Your task to perform on an android device: see sites visited before in the chrome app Image 0: 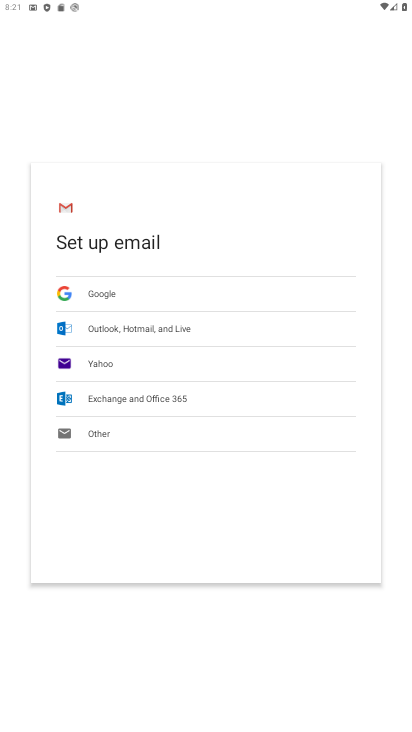
Step 0: press back button
Your task to perform on an android device: see sites visited before in the chrome app Image 1: 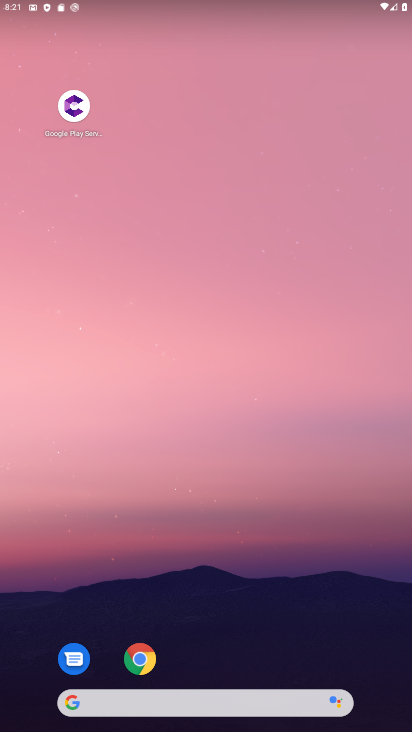
Step 1: drag from (238, 509) to (238, 181)
Your task to perform on an android device: see sites visited before in the chrome app Image 2: 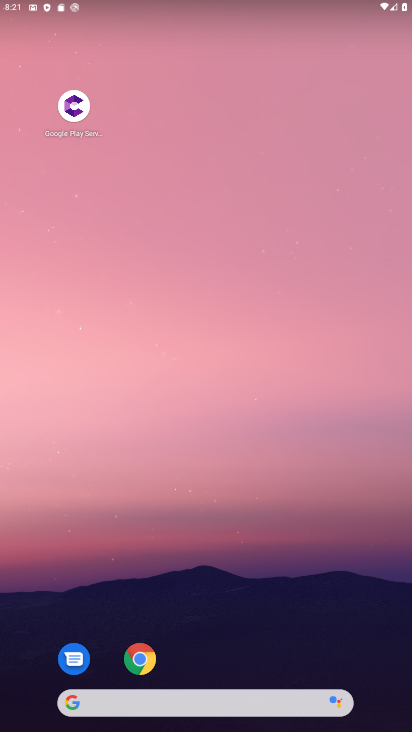
Step 2: drag from (195, 620) to (195, 184)
Your task to perform on an android device: see sites visited before in the chrome app Image 3: 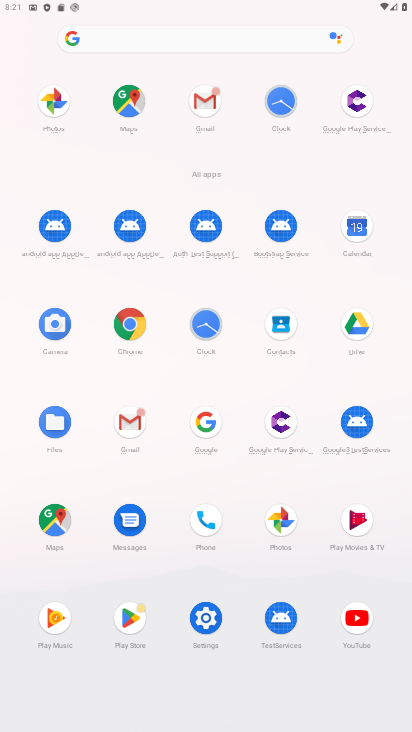
Step 3: click (136, 325)
Your task to perform on an android device: see sites visited before in the chrome app Image 4: 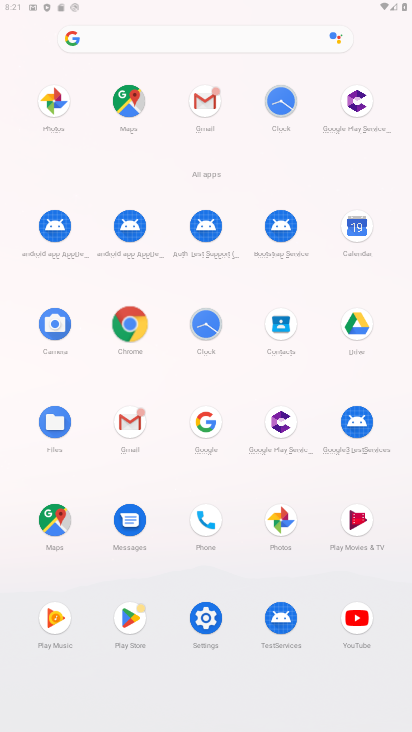
Step 4: click (136, 325)
Your task to perform on an android device: see sites visited before in the chrome app Image 5: 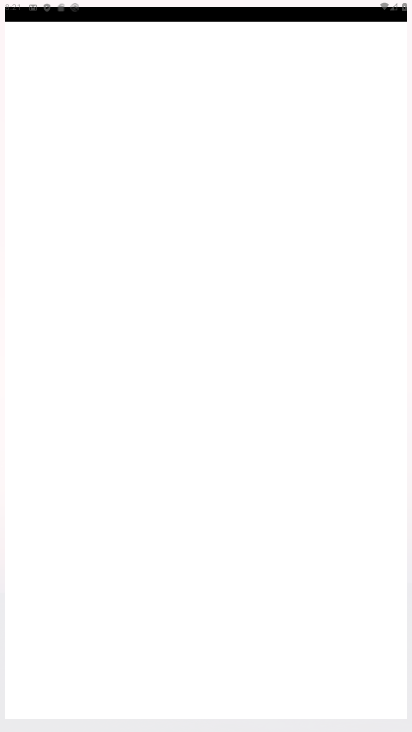
Step 5: click (136, 325)
Your task to perform on an android device: see sites visited before in the chrome app Image 6: 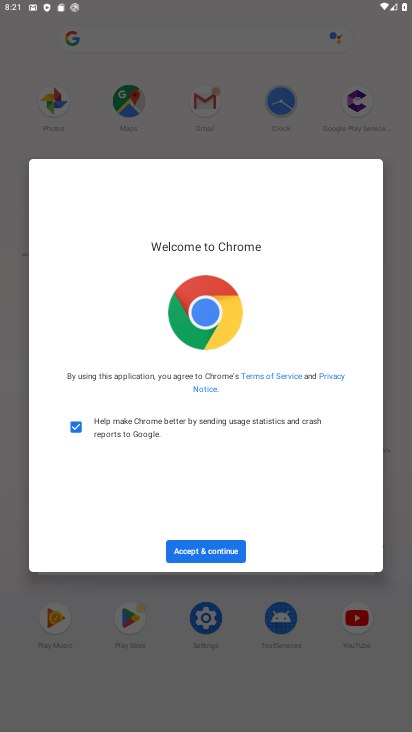
Step 6: click (210, 543)
Your task to perform on an android device: see sites visited before in the chrome app Image 7: 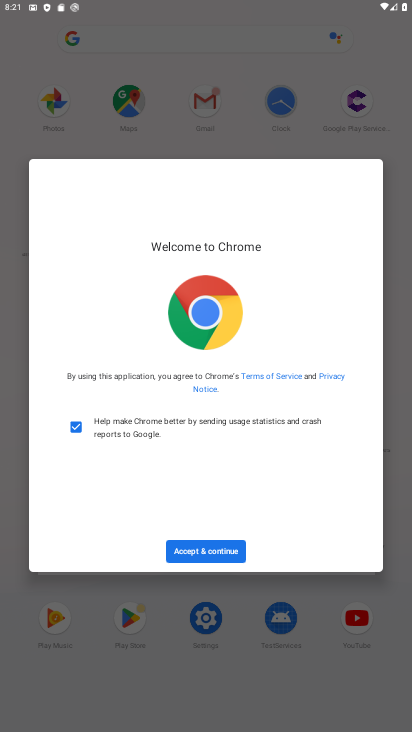
Step 7: click (210, 543)
Your task to perform on an android device: see sites visited before in the chrome app Image 8: 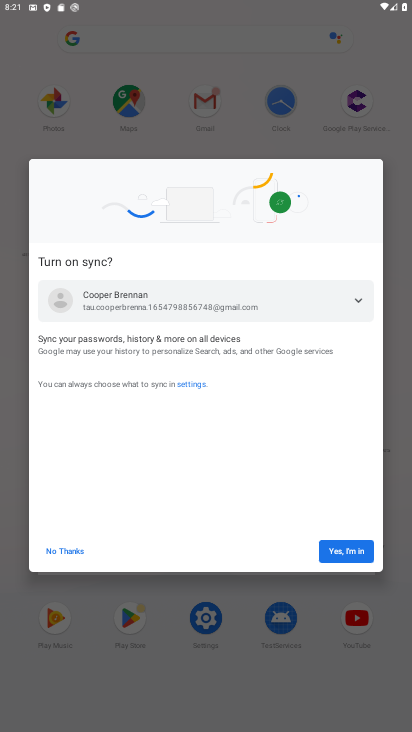
Step 8: click (366, 557)
Your task to perform on an android device: see sites visited before in the chrome app Image 9: 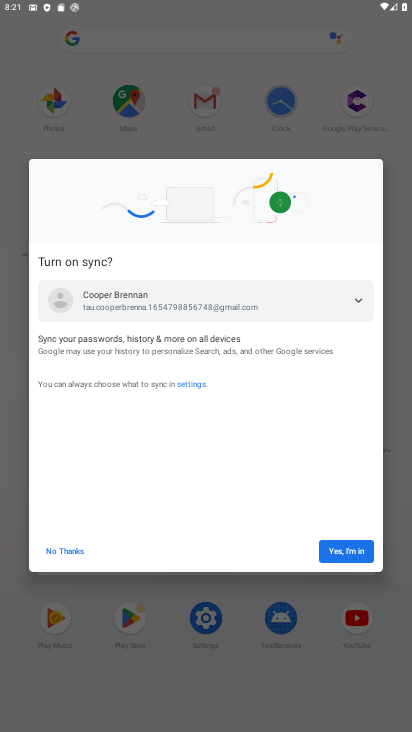
Step 9: click (366, 557)
Your task to perform on an android device: see sites visited before in the chrome app Image 10: 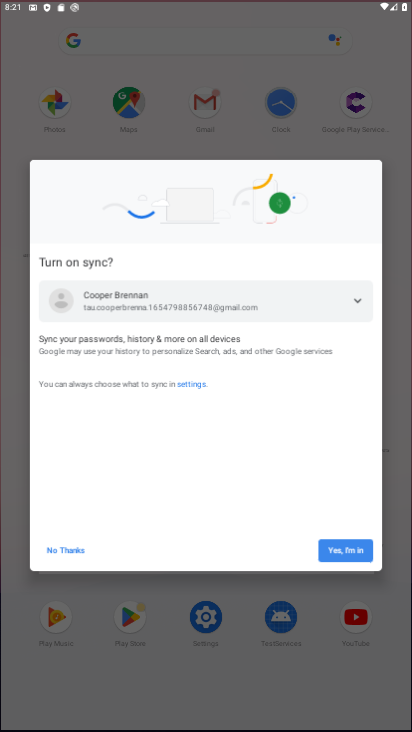
Step 10: click (366, 557)
Your task to perform on an android device: see sites visited before in the chrome app Image 11: 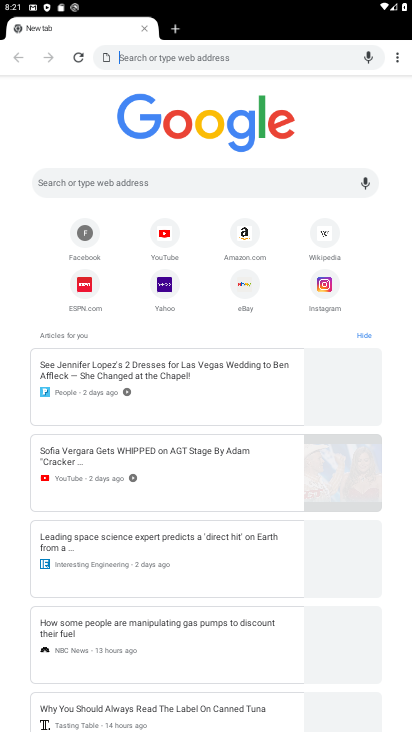
Step 11: drag from (391, 57) to (285, 115)
Your task to perform on an android device: see sites visited before in the chrome app Image 12: 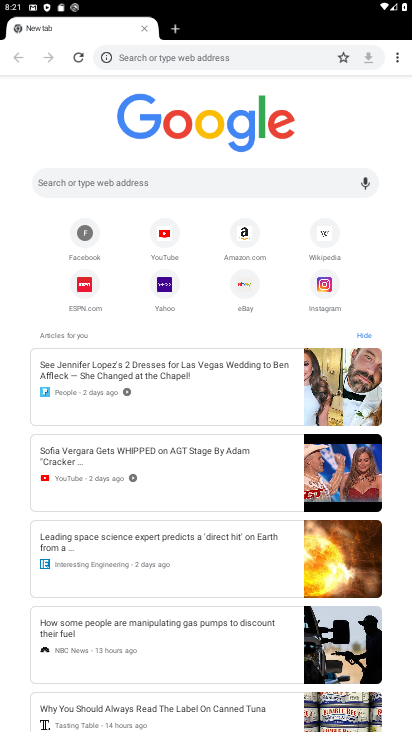
Step 12: click (285, 115)
Your task to perform on an android device: see sites visited before in the chrome app Image 13: 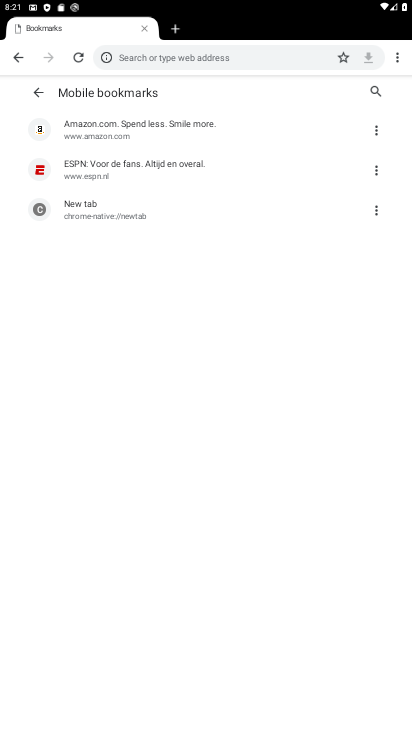
Step 13: click (17, 59)
Your task to perform on an android device: see sites visited before in the chrome app Image 14: 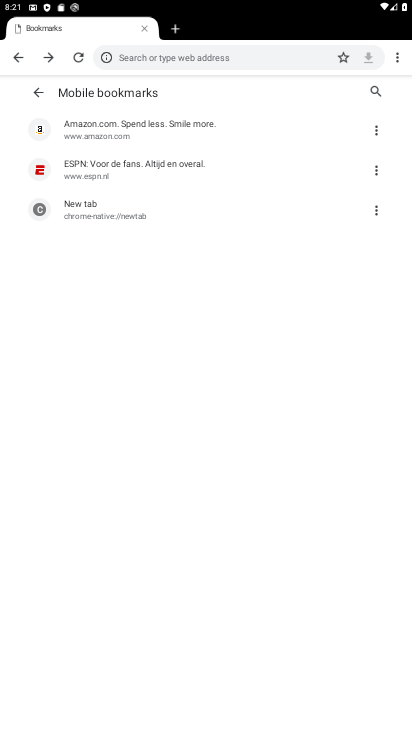
Step 14: drag from (394, 62) to (263, 146)
Your task to perform on an android device: see sites visited before in the chrome app Image 15: 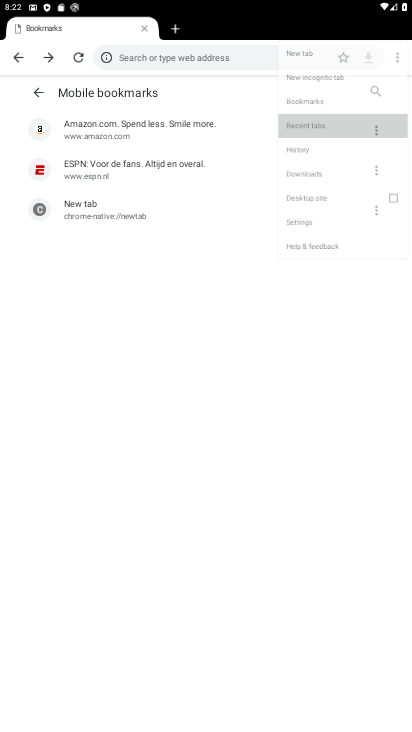
Step 15: click (267, 141)
Your task to perform on an android device: see sites visited before in the chrome app Image 16: 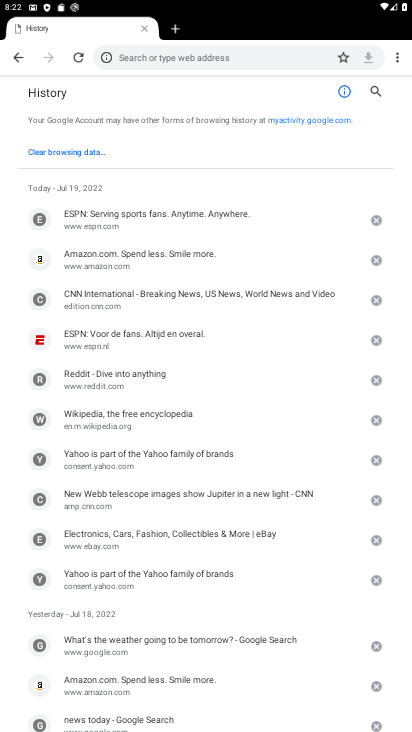
Step 16: task complete